Your task to perform on an android device: turn on bluetooth scan Image 0: 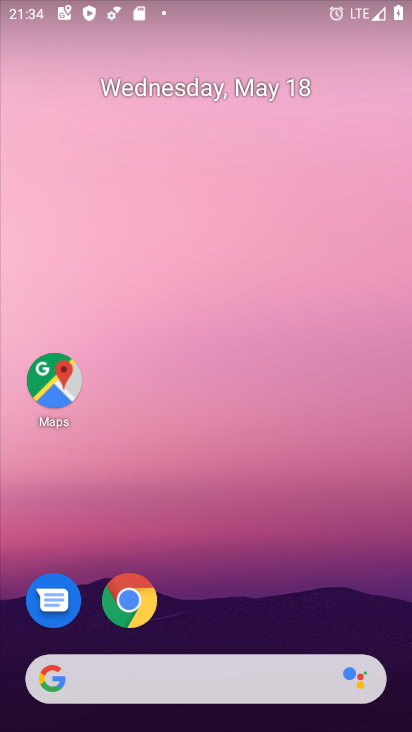
Step 0: drag from (223, 611) to (328, 41)
Your task to perform on an android device: turn on bluetooth scan Image 1: 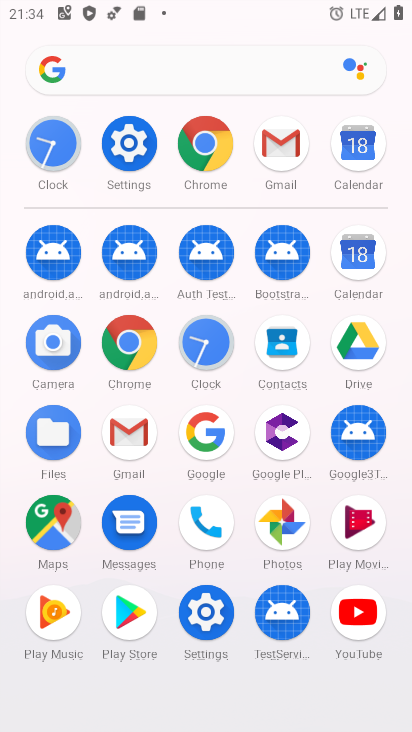
Step 1: click (121, 142)
Your task to perform on an android device: turn on bluetooth scan Image 2: 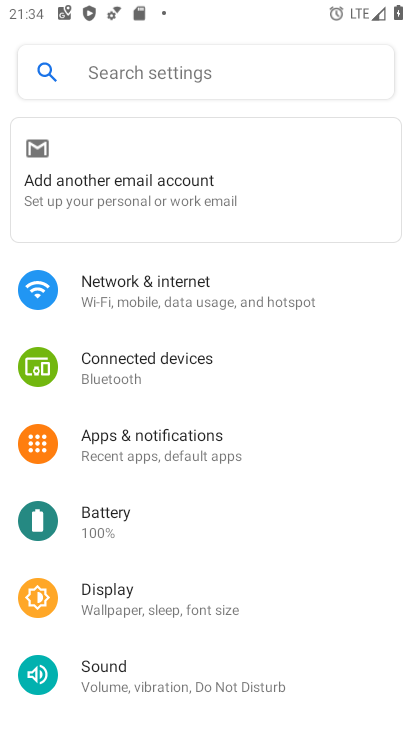
Step 2: click (106, 395)
Your task to perform on an android device: turn on bluetooth scan Image 3: 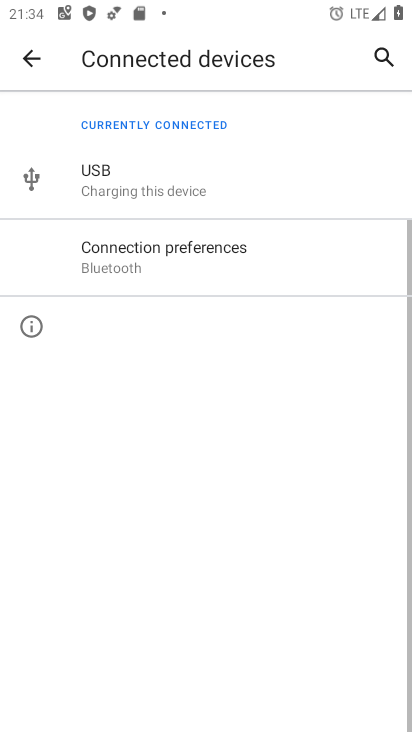
Step 3: click (152, 255)
Your task to perform on an android device: turn on bluetooth scan Image 4: 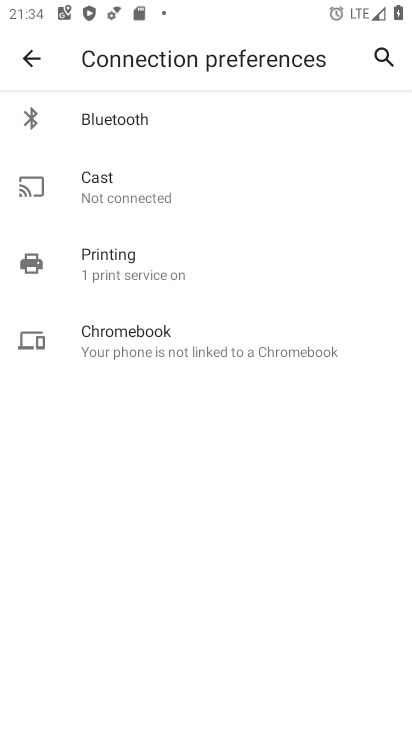
Step 4: click (123, 113)
Your task to perform on an android device: turn on bluetooth scan Image 5: 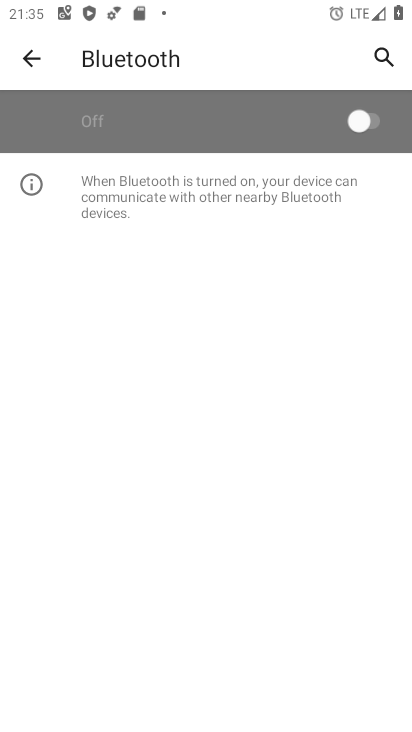
Step 5: click (361, 116)
Your task to perform on an android device: turn on bluetooth scan Image 6: 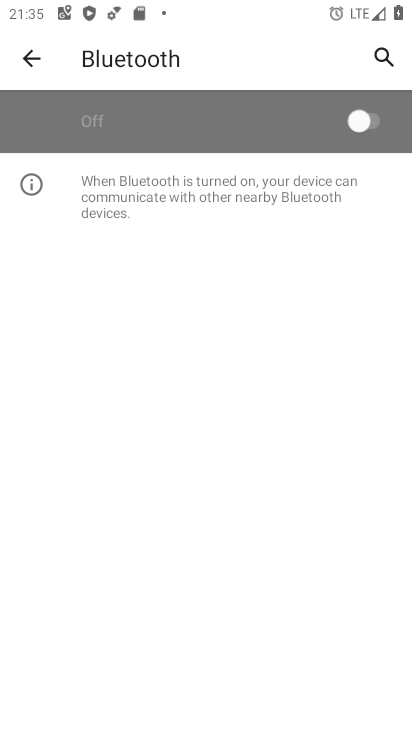
Step 6: task complete